Your task to perform on an android device: Open maps Image 0: 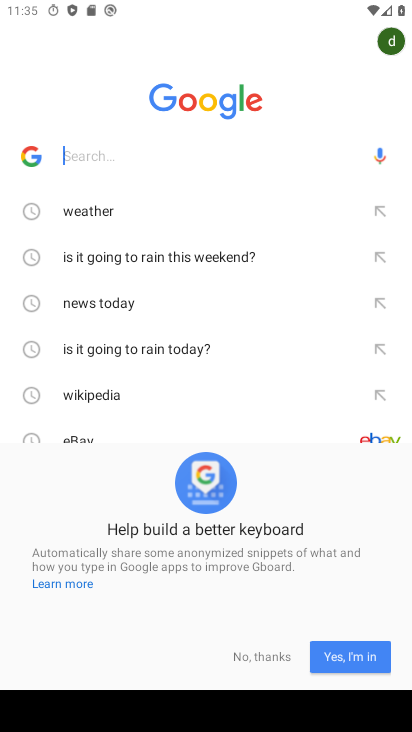
Step 0: press home button
Your task to perform on an android device: Open maps Image 1: 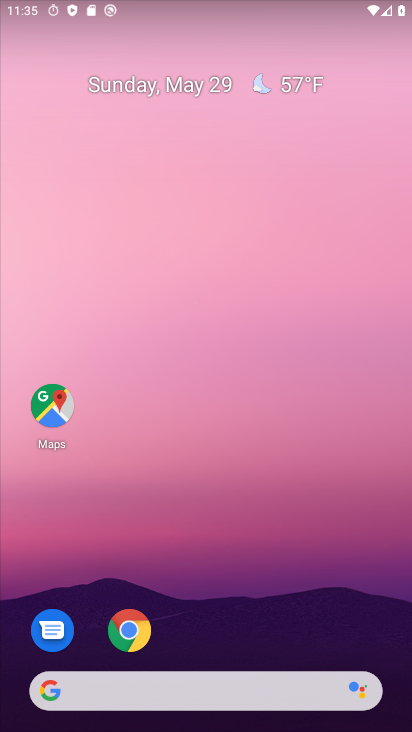
Step 1: drag from (275, 712) to (319, 199)
Your task to perform on an android device: Open maps Image 2: 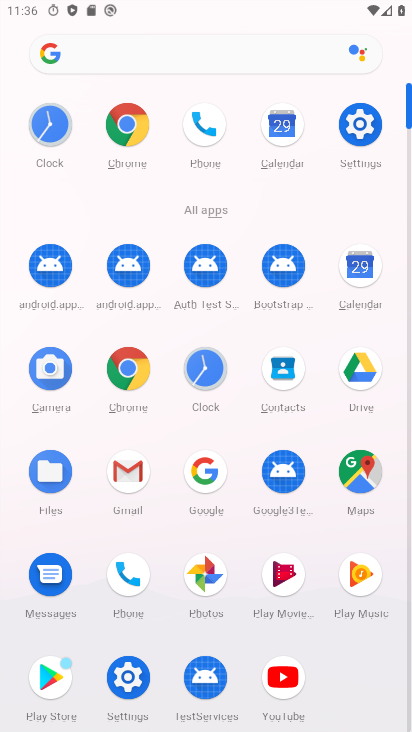
Step 2: click (357, 459)
Your task to perform on an android device: Open maps Image 3: 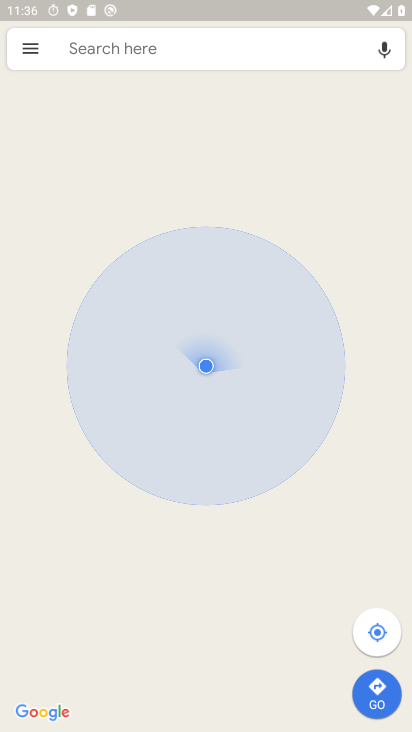
Step 3: click (29, 56)
Your task to perform on an android device: Open maps Image 4: 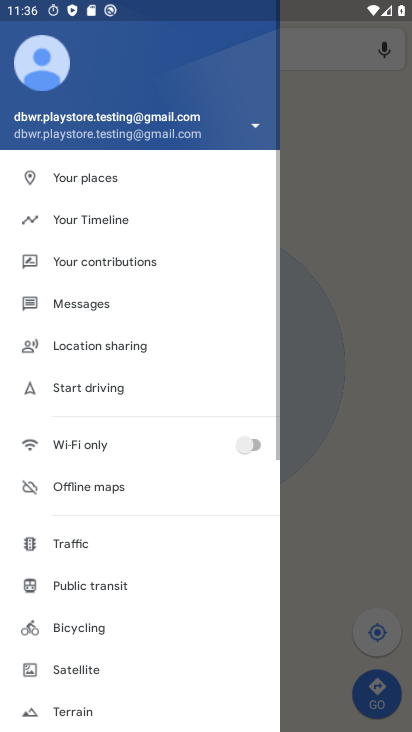
Step 4: click (317, 426)
Your task to perform on an android device: Open maps Image 5: 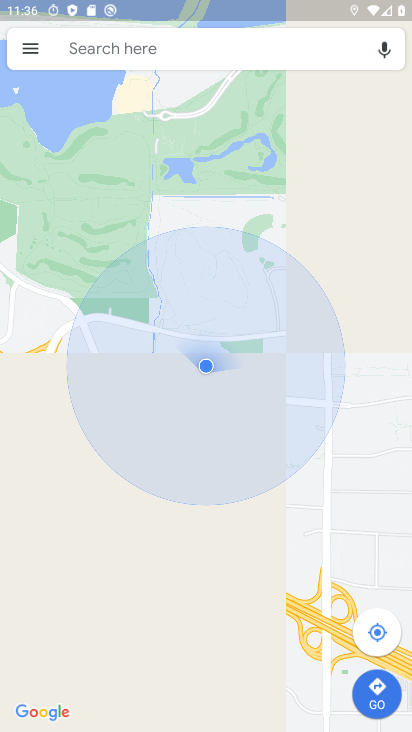
Step 5: click (381, 629)
Your task to perform on an android device: Open maps Image 6: 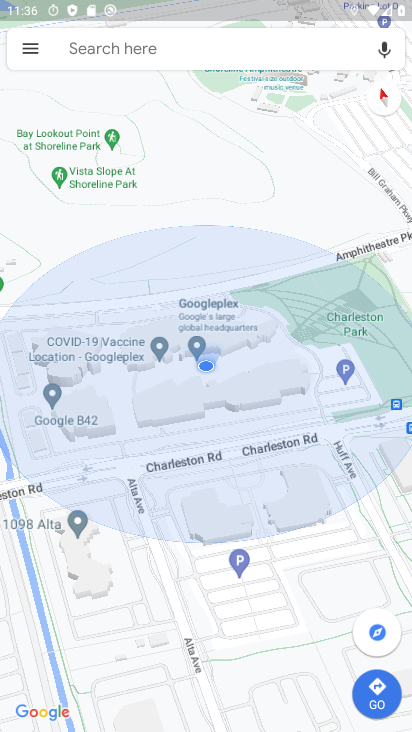
Step 6: task complete